Your task to perform on an android device: refresh tabs in the chrome app Image 0: 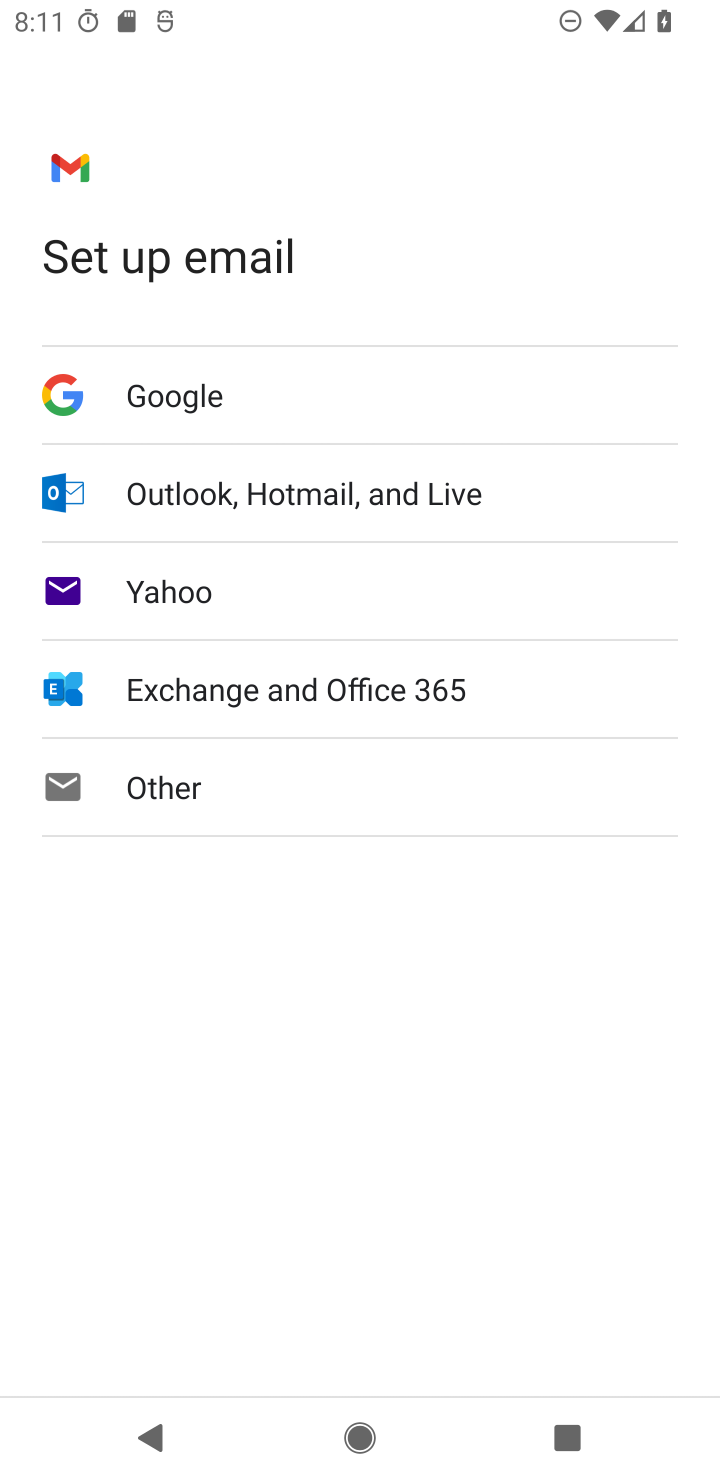
Step 0: press home button
Your task to perform on an android device: refresh tabs in the chrome app Image 1: 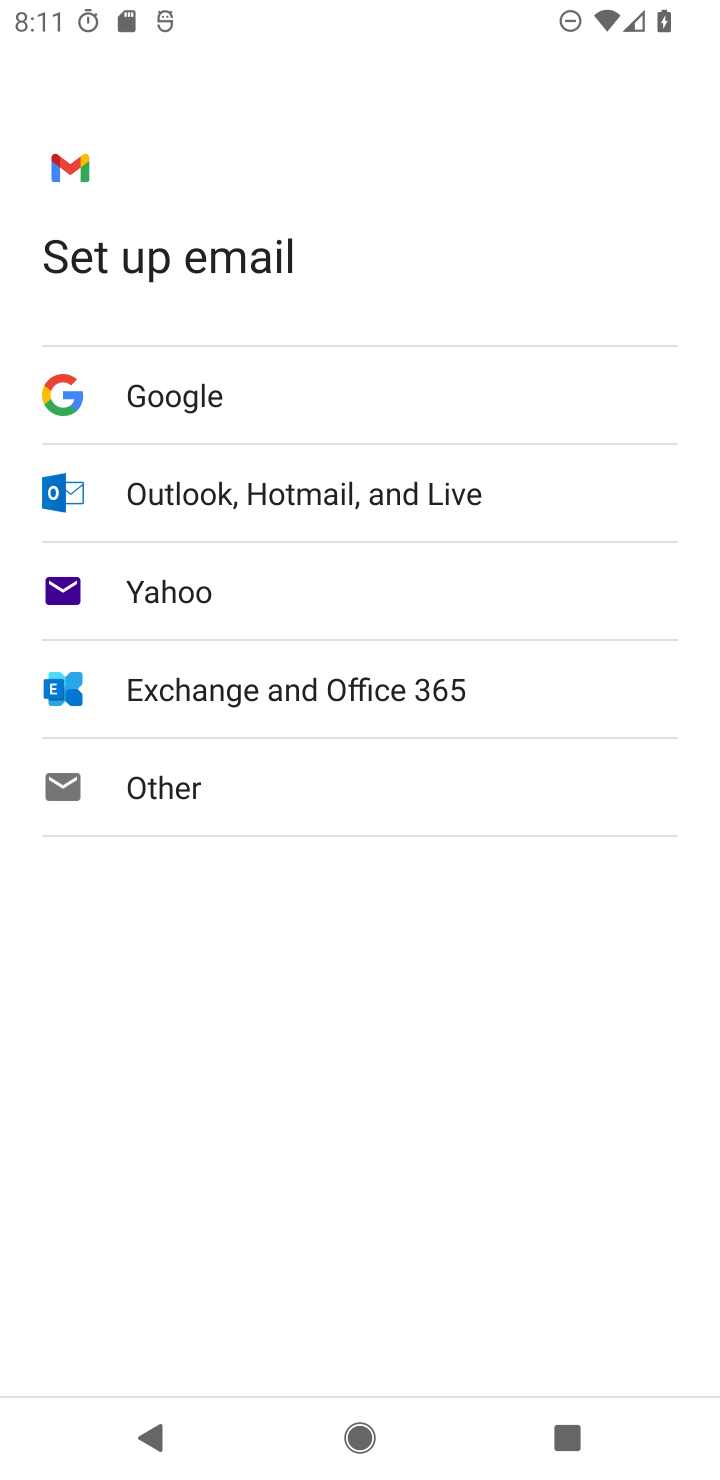
Step 1: press home button
Your task to perform on an android device: refresh tabs in the chrome app Image 2: 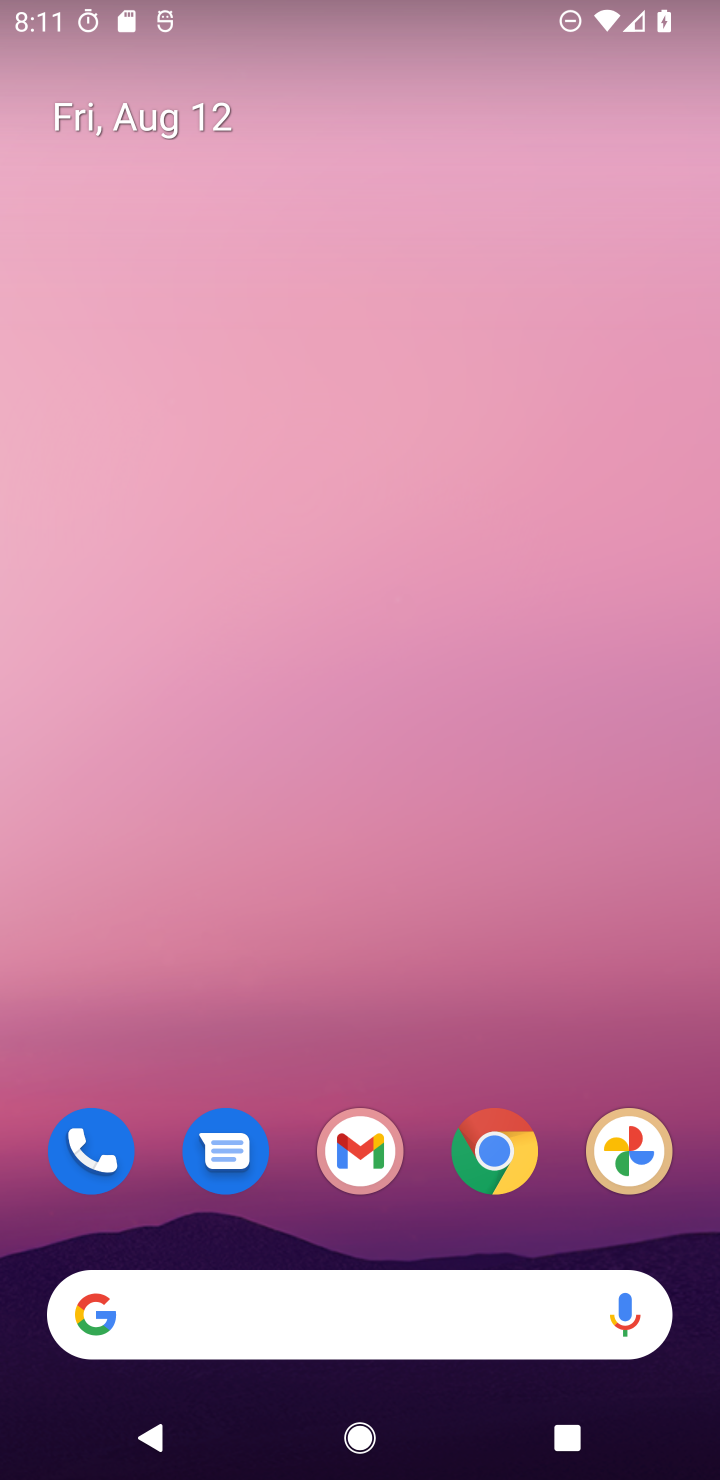
Step 2: drag from (427, 933) to (527, 40)
Your task to perform on an android device: refresh tabs in the chrome app Image 3: 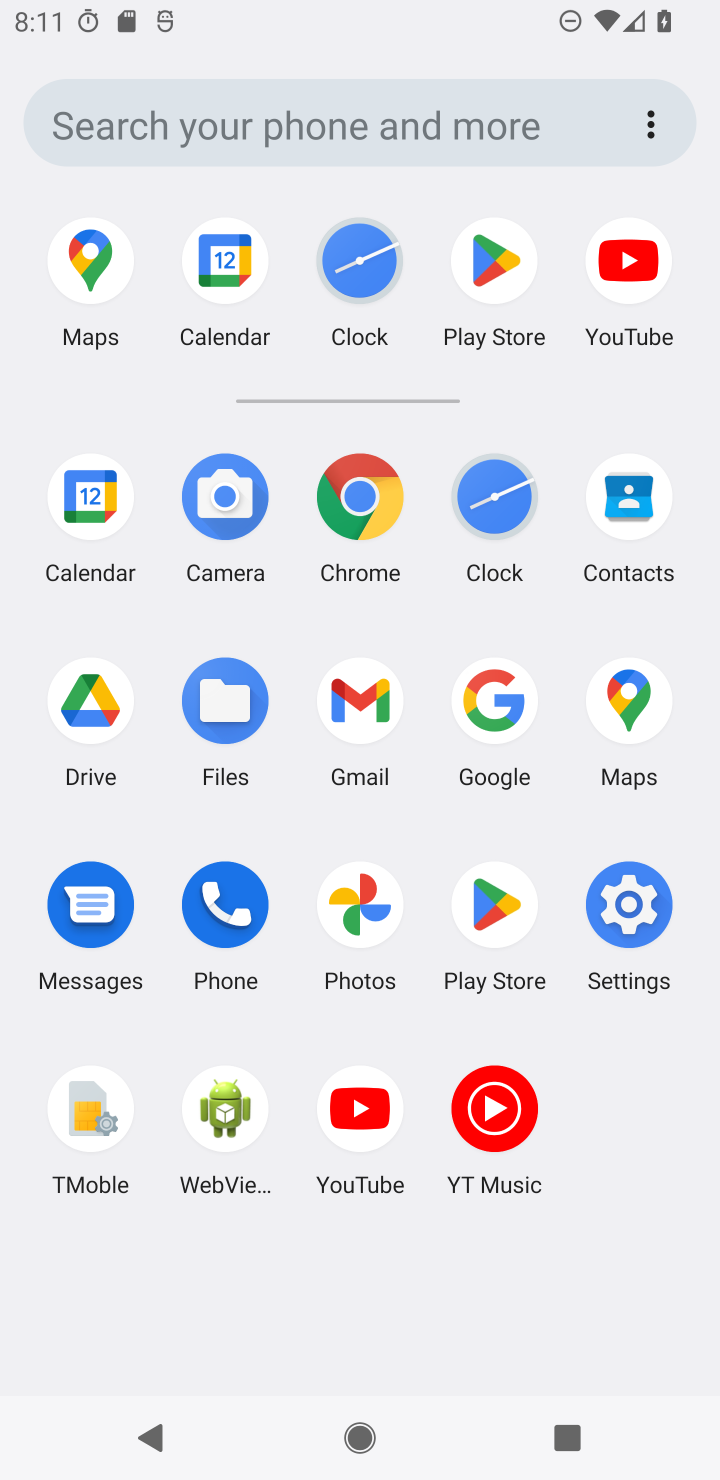
Step 3: click (356, 494)
Your task to perform on an android device: refresh tabs in the chrome app Image 4: 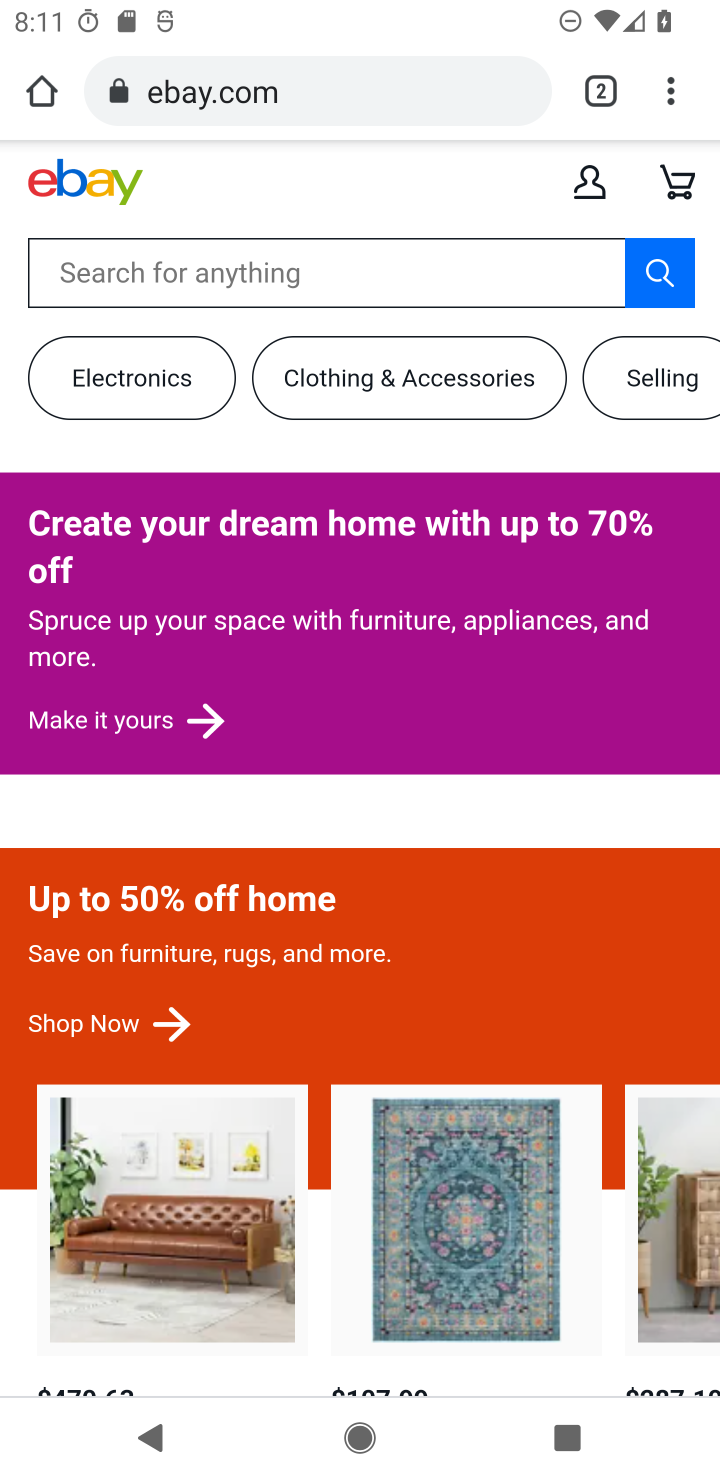
Step 4: click (678, 83)
Your task to perform on an android device: refresh tabs in the chrome app Image 5: 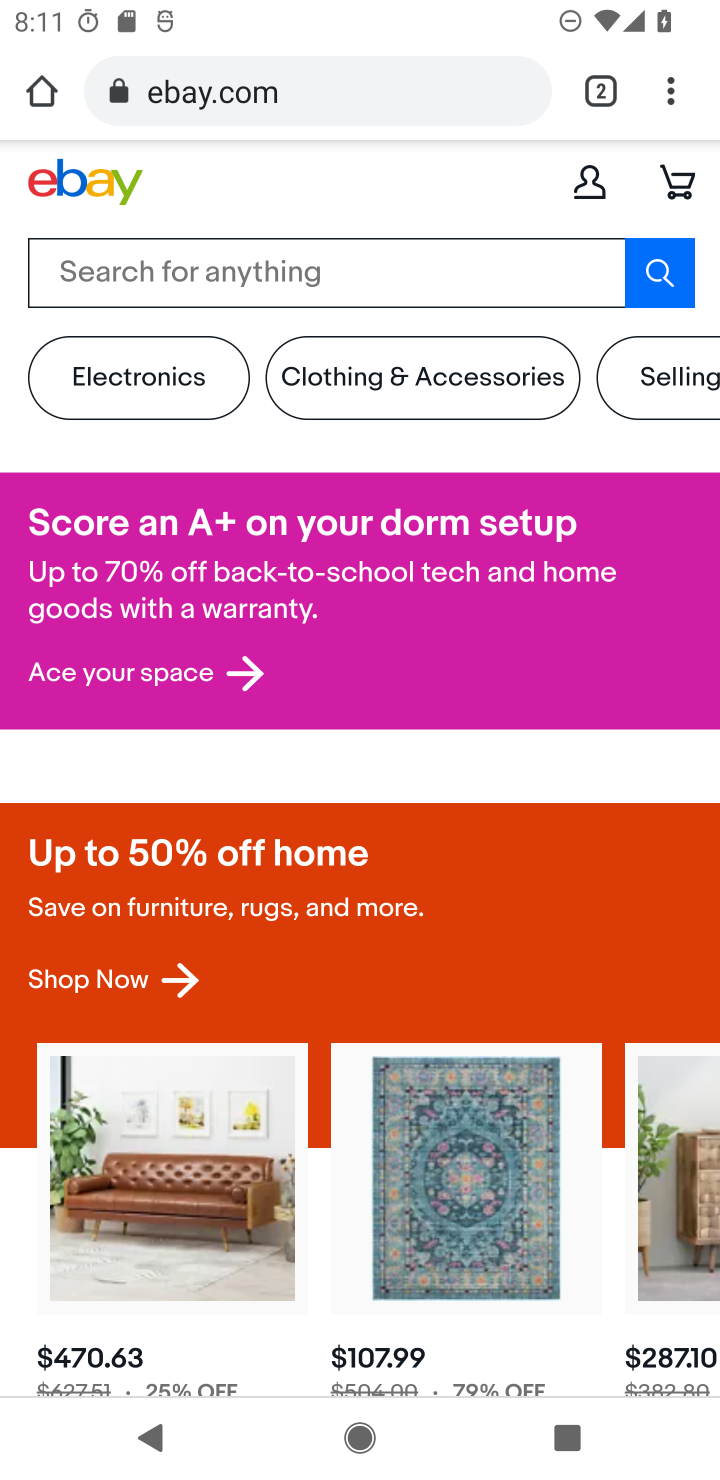
Step 5: task complete